Your task to perform on an android device: toggle javascript in the chrome app Image 0: 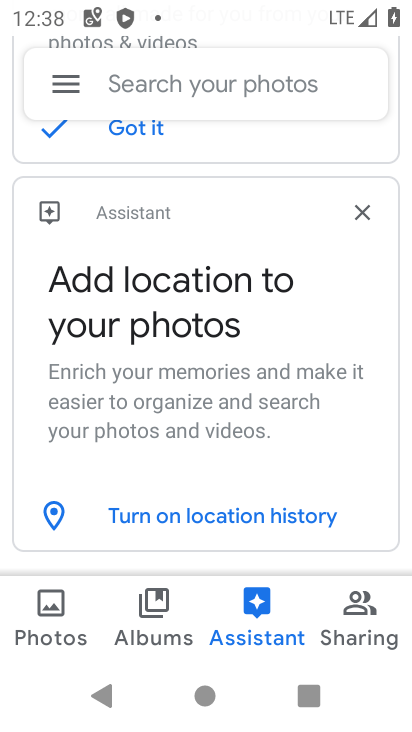
Step 0: press home button
Your task to perform on an android device: toggle javascript in the chrome app Image 1: 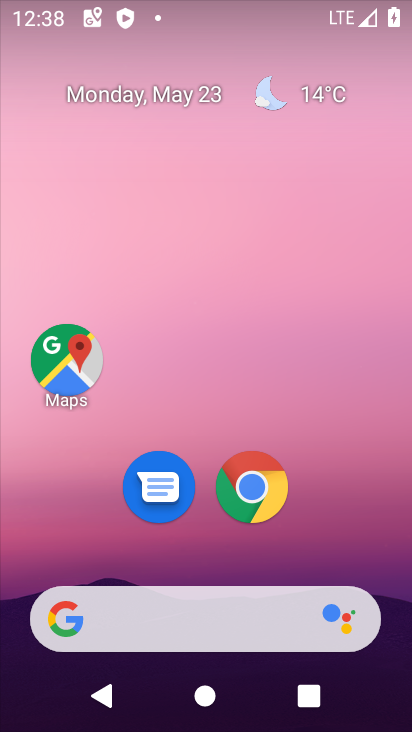
Step 1: click (253, 478)
Your task to perform on an android device: toggle javascript in the chrome app Image 2: 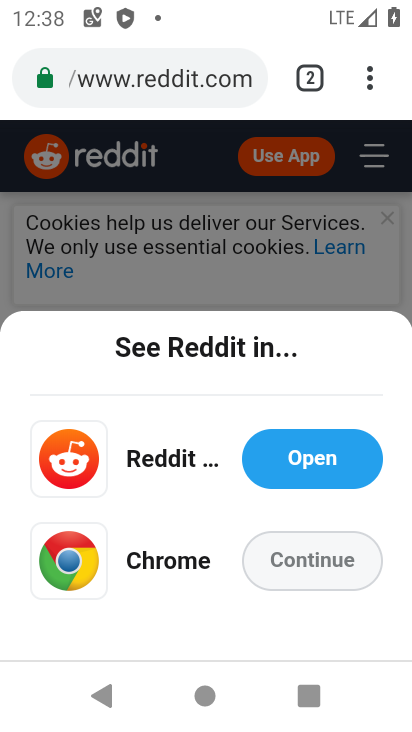
Step 2: click (368, 85)
Your task to perform on an android device: toggle javascript in the chrome app Image 3: 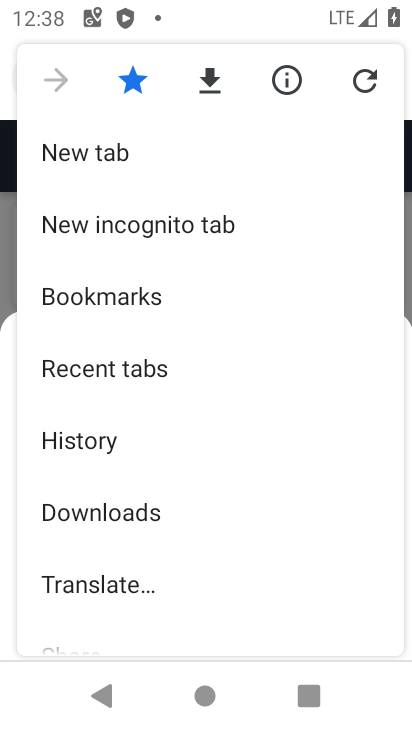
Step 3: drag from (221, 530) to (234, 181)
Your task to perform on an android device: toggle javascript in the chrome app Image 4: 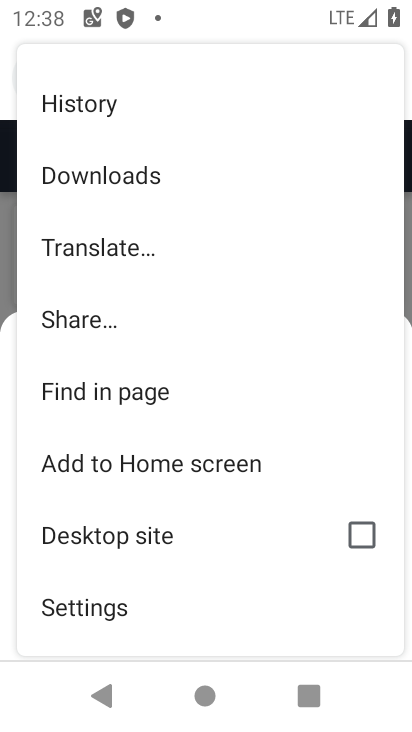
Step 4: click (84, 606)
Your task to perform on an android device: toggle javascript in the chrome app Image 5: 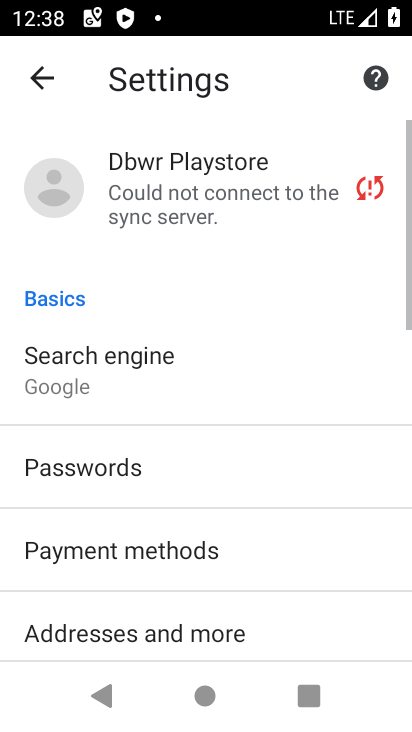
Step 5: drag from (298, 608) to (241, 152)
Your task to perform on an android device: toggle javascript in the chrome app Image 6: 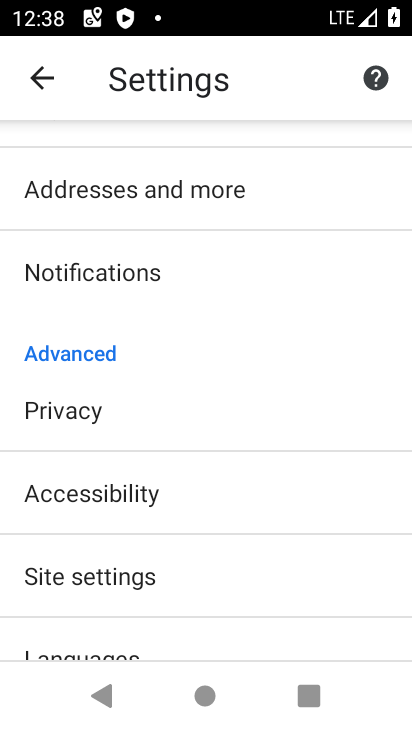
Step 6: click (87, 589)
Your task to perform on an android device: toggle javascript in the chrome app Image 7: 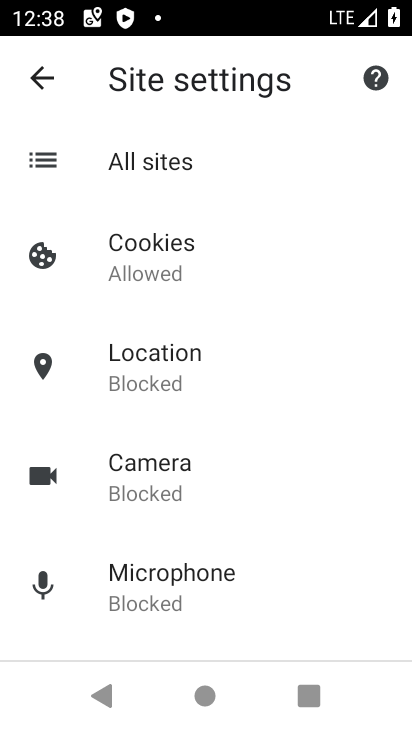
Step 7: drag from (237, 546) to (218, 149)
Your task to perform on an android device: toggle javascript in the chrome app Image 8: 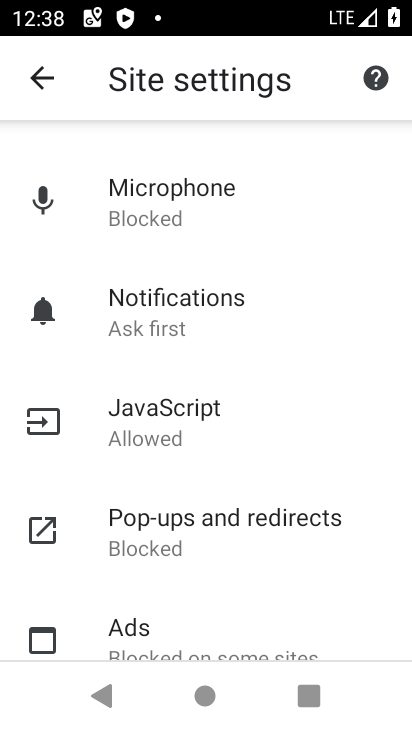
Step 8: click (135, 422)
Your task to perform on an android device: toggle javascript in the chrome app Image 9: 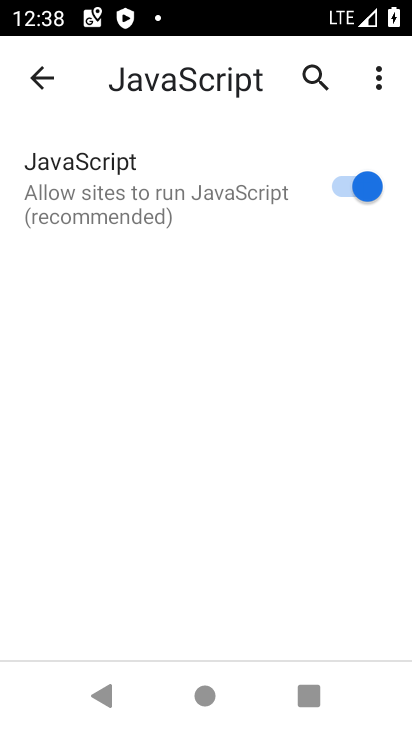
Step 9: click (333, 189)
Your task to perform on an android device: toggle javascript in the chrome app Image 10: 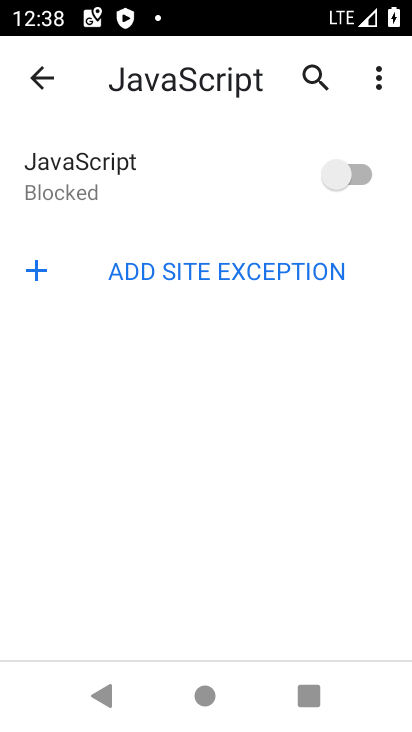
Step 10: task complete